Your task to perform on an android device: Go to network settings Image 0: 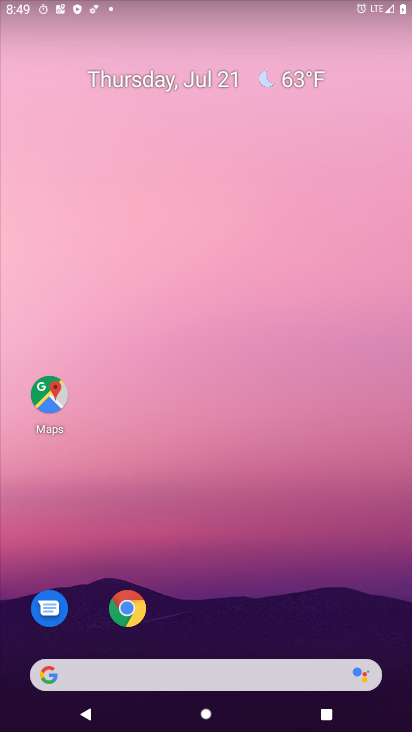
Step 0: drag from (232, 613) to (344, 3)
Your task to perform on an android device: Go to network settings Image 1: 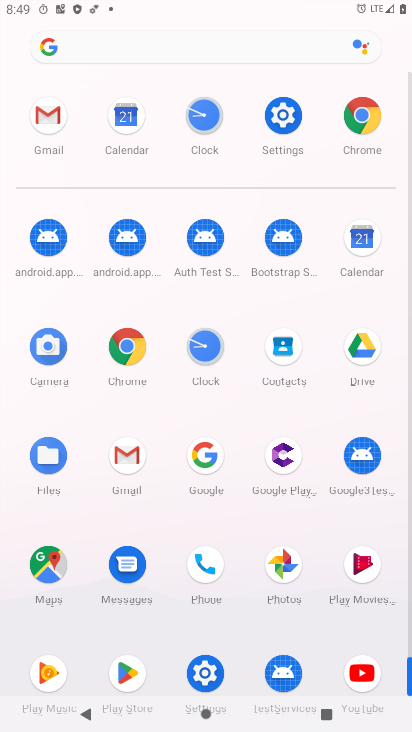
Step 1: click (220, 672)
Your task to perform on an android device: Go to network settings Image 2: 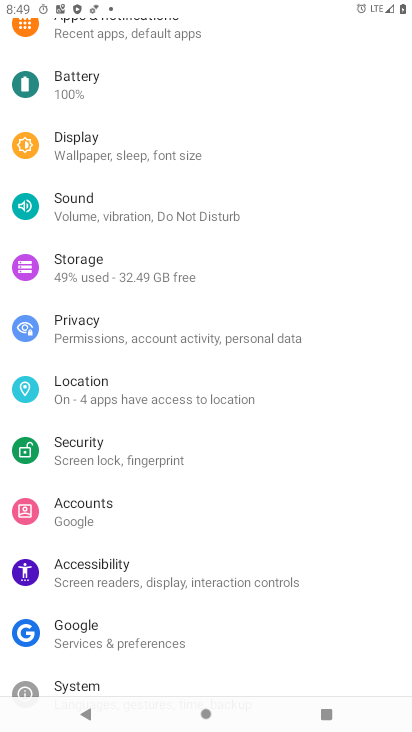
Step 2: drag from (236, 256) to (77, 725)
Your task to perform on an android device: Go to network settings Image 3: 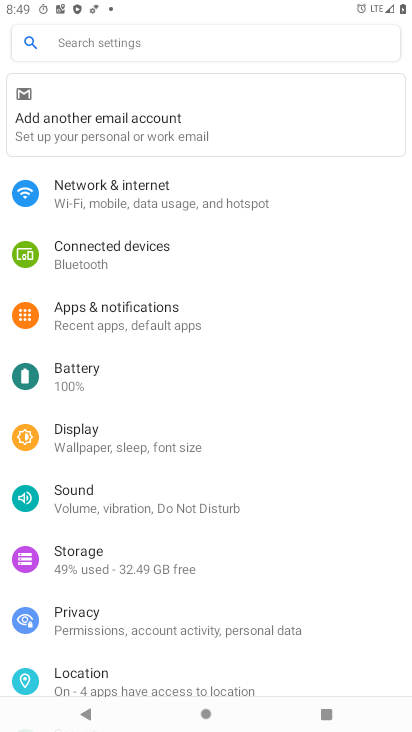
Step 3: click (183, 203)
Your task to perform on an android device: Go to network settings Image 4: 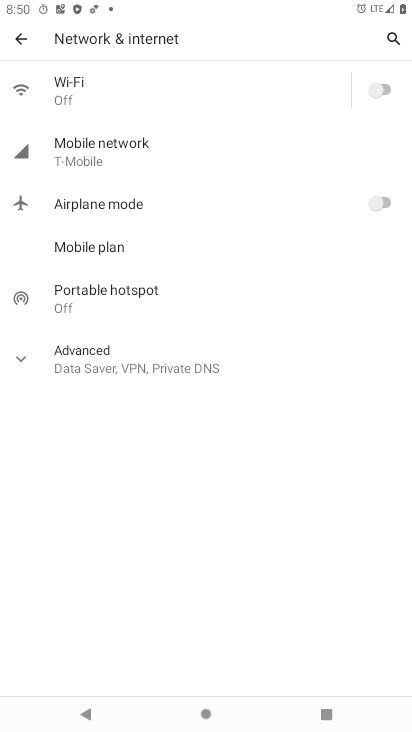
Step 4: task complete